Your task to perform on an android device: Go to Google Image 0: 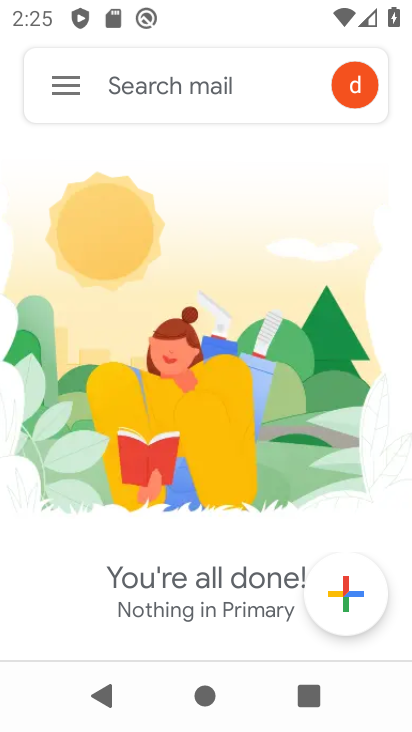
Step 0: press home button
Your task to perform on an android device: Go to Google Image 1: 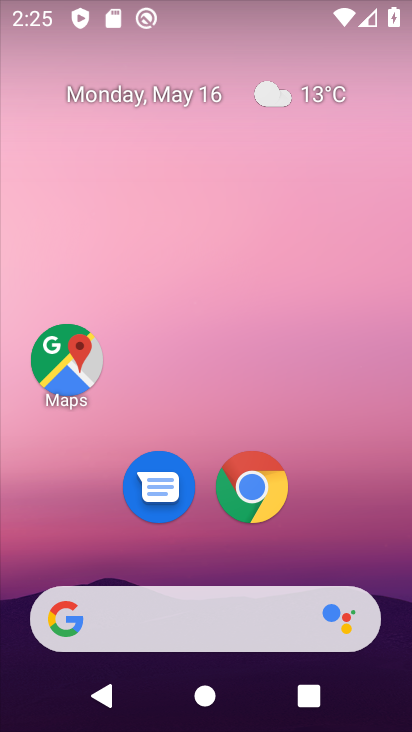
Step 1: drag from (309, 402) to (100, 94)
Your task to perform on an android device: Go to Google Image 2: 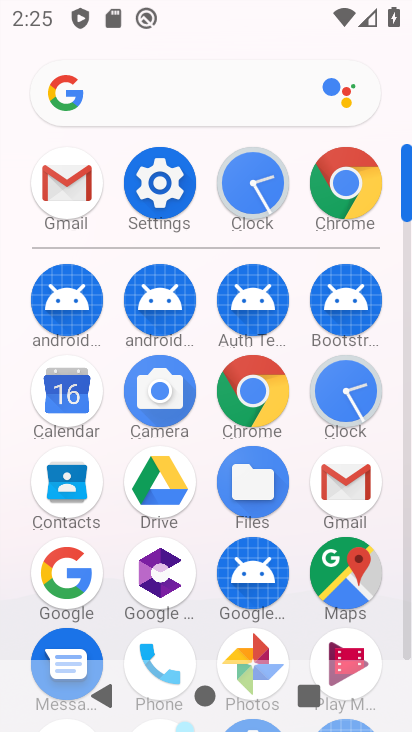
Step 2: click (85, 591)
Your task to perform on an android device: Go to Google Image 3: 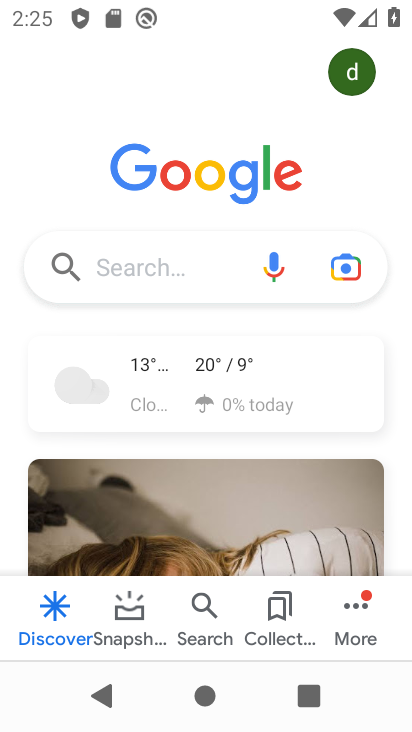
Step 3: task complete